Your task to perform on an android device: toggle improve location accuracy Image 0: 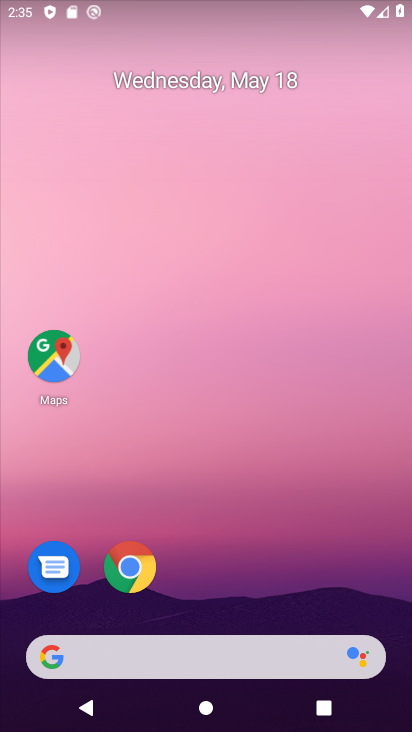
Step 0: drag from (237, 604) to (189, 166)
Your task to perform on an android device: toggle improve location accuracy Image 1: 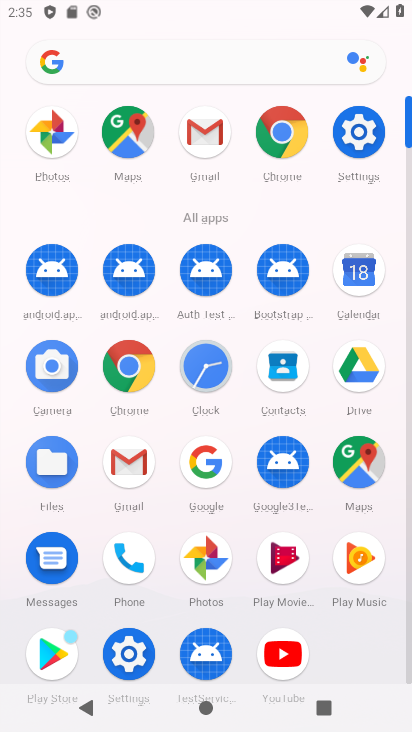
Step 1: click (361, 129)
Your task to perform on an android device: toggle improve location accuracy Image 2: 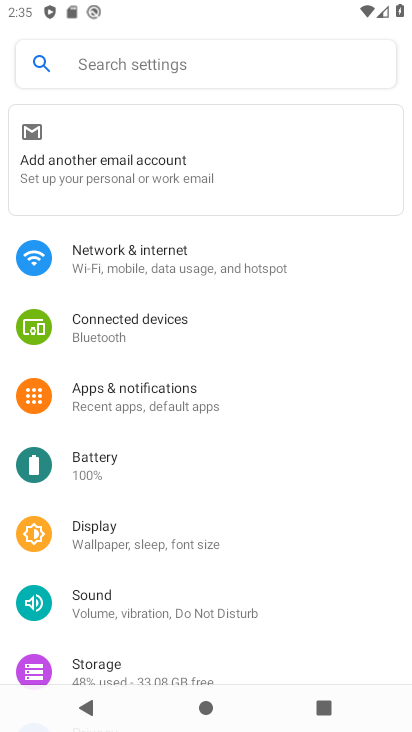
Step 2: drag from (123, 621) to (139, 214)
Your task to perform on an android device: toggle improve location accuracy Image 3: 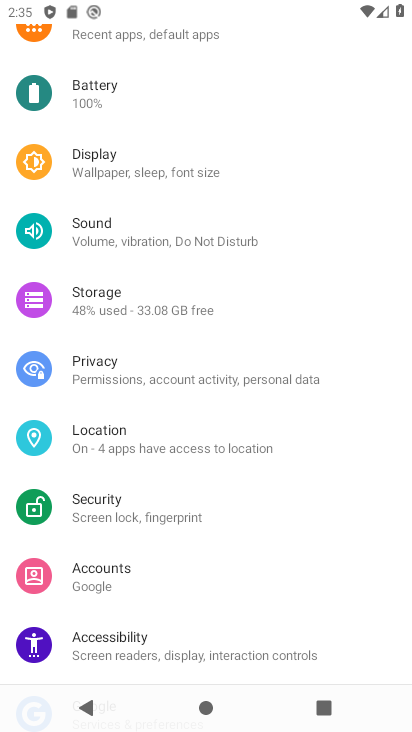
Step 3: click (118, 438)
Your task to perform on an android device: toggle improve location accuracy Image 4: 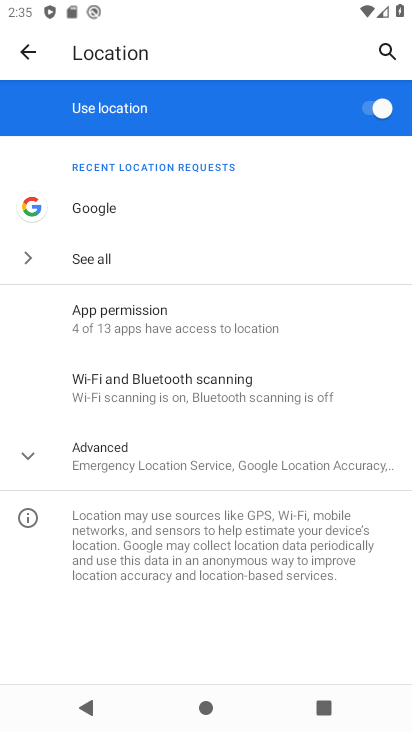
Step 4: click (104, 460)
Your task to perform on an android device: toggle improve location accuracy Image 5: 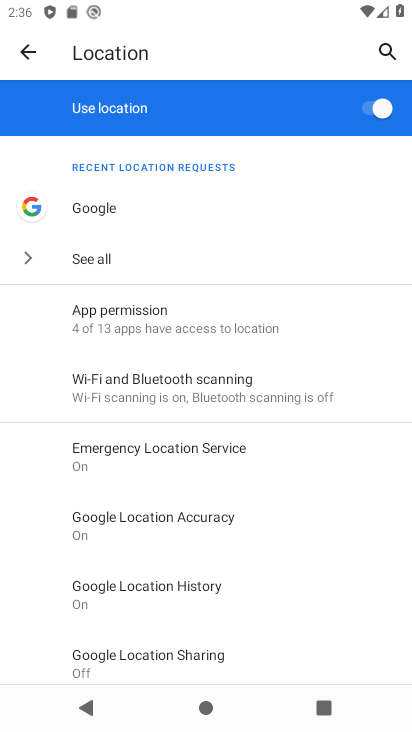
Step 5: click (179, 515)
Your task to perform on an android device: toggle improve location accuracy Image 6: 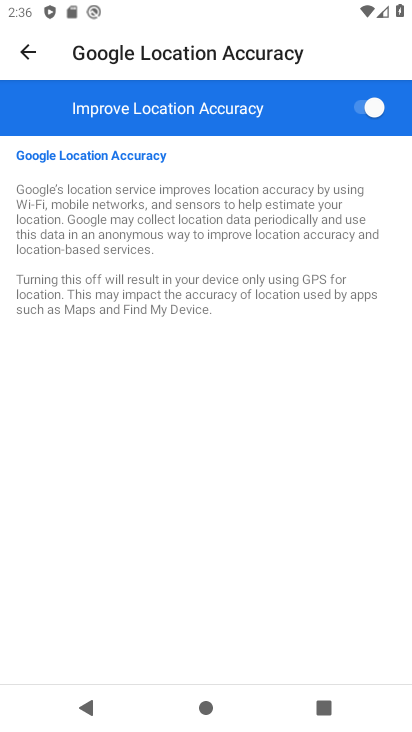
Step 6: click (361, 109)
Your task to perform on an android device: toggle improve location accuracy Image 7: 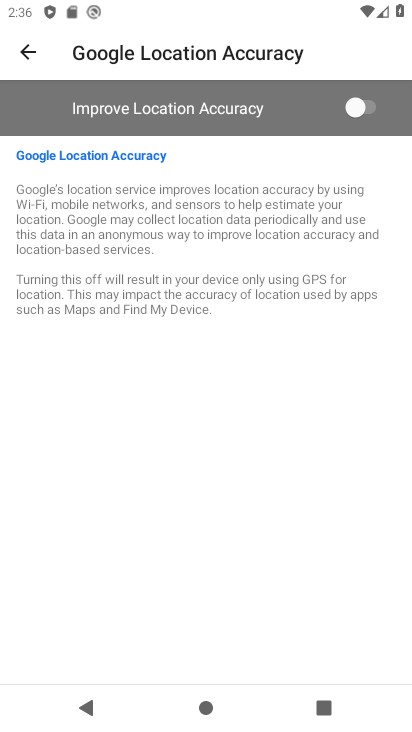
Step 7: task complete